Your task to perform on an android device: move a message to another label in the gmail app Image 0: 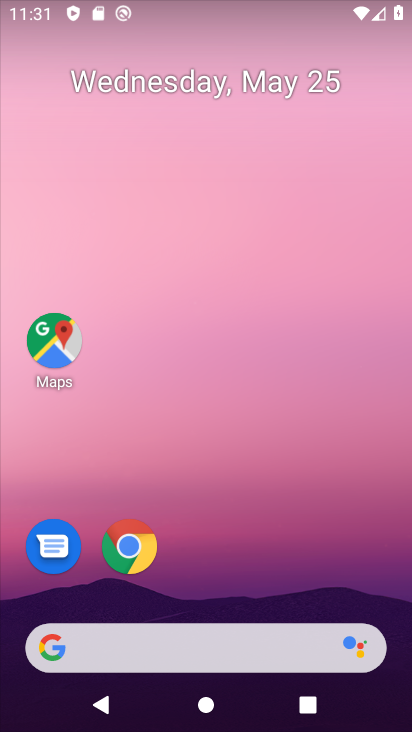
Step 0: drag from (230, 592) to (219, 127)
Your task to perform on an android device: move a message to another label in the gmail app Image 1: 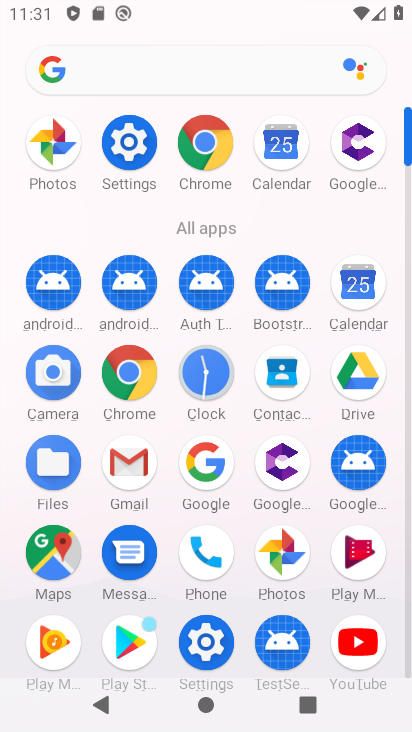
Step 1: click (130, 471)
Your task to perform on an android device: move a message to another label in the gmail app Image 2: 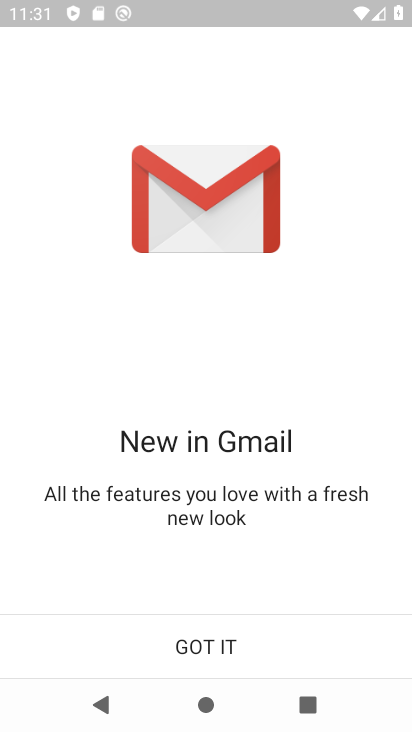
Step 2: click (235, 645)
Your task to perform on an android device: move a message to another label in the gmail app Image 3: 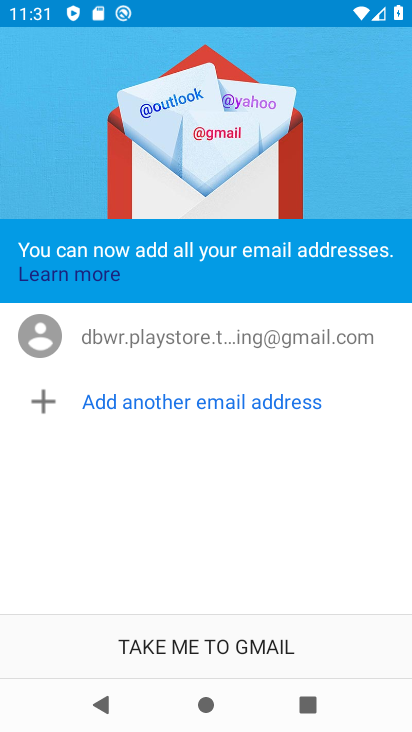
Step 3: click (235, 644)
Your task to perform on an android device: move a message to another label in the gmail app Image 4: 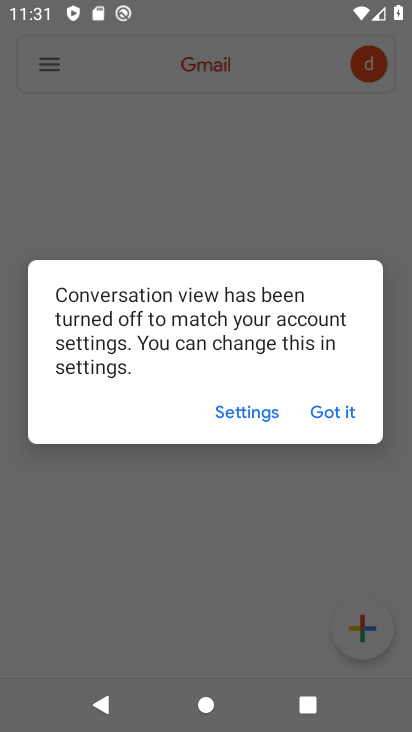
Step 4: click (314, 414)
Your task to perform on an android device: move a message to another label in the gmail app Image 5: 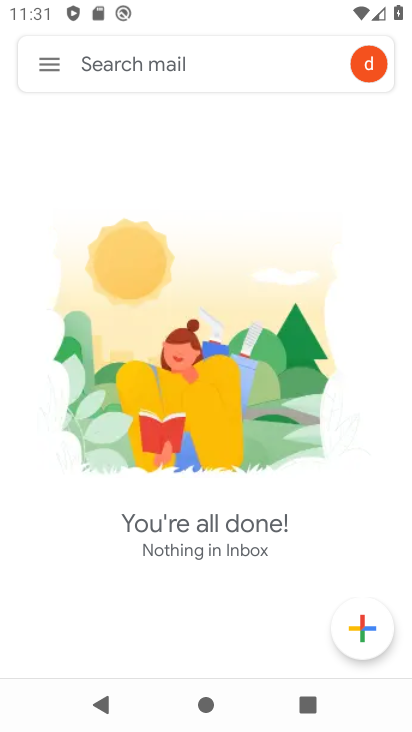
Step 5: click (46, 64)
Your task to perform on an android device: move a message to another label in the gmail app Image 6: 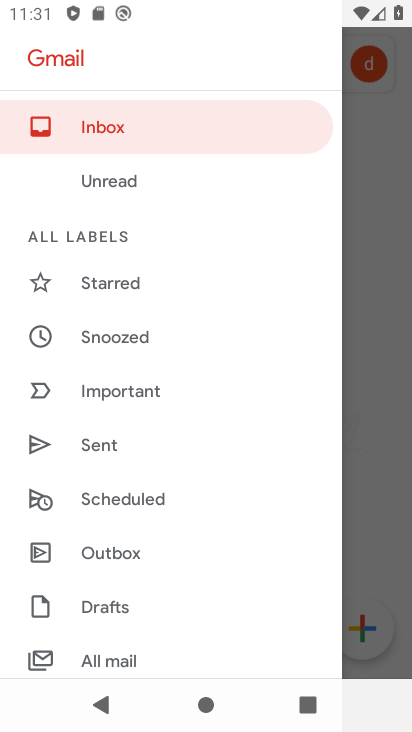
Step 6: click (132, 664)
Your task to perform on an android device: move a message to another label in the gmail app Image 7: 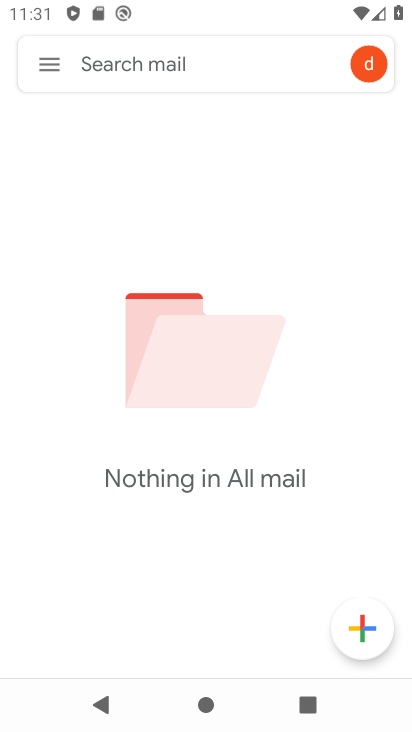
Step 7: task complete